Your task to perform on an android device: all mails in gmail Image 0: 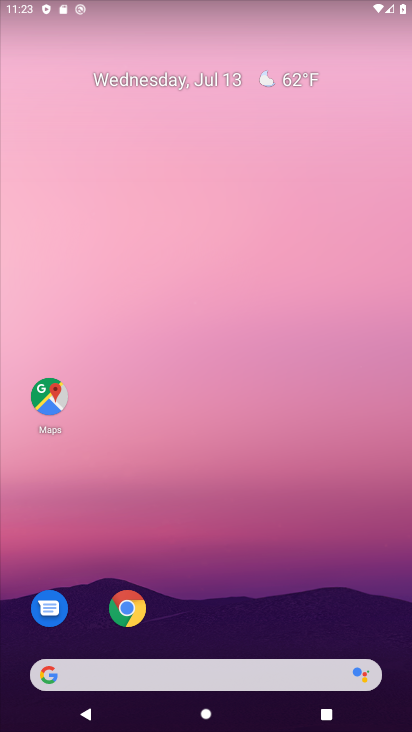
Step 0: drag from (240, 712) to (232, 125)
Your task to perform on an android device: all mails in gmail Image 1: 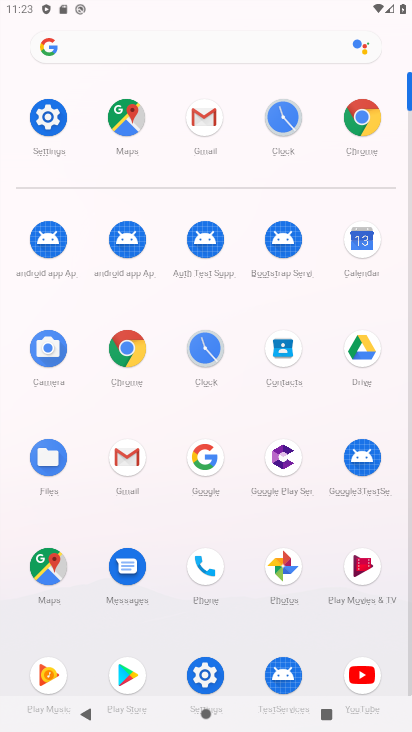
Step 1: click (132, 460)
Your task to perform on an android device: all mails in gmail Image 2: 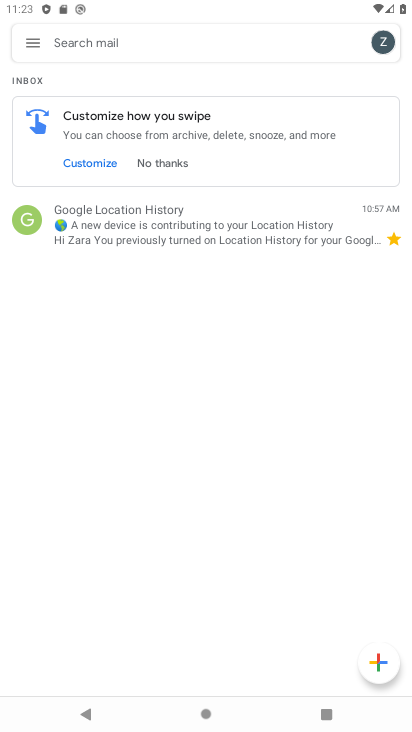
Step 2: click (31, 46)
Your task to perform on an android device: all mails in gmail Image 3: 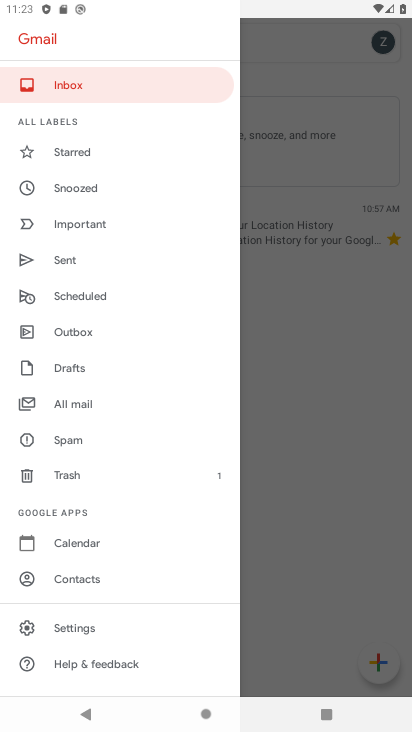
Step 3: click (77, 399)
Your task to perform on an android device: all mails in gmail Image 4: 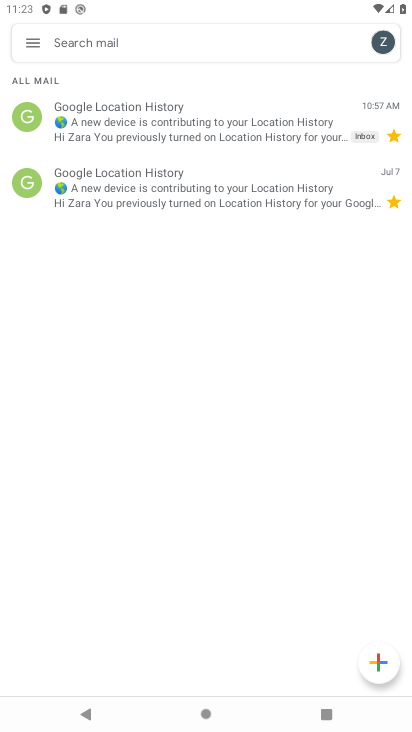
Step 4: task complete